Your task to perform on an android device: make emails show in primary in the gmail app Image 0: 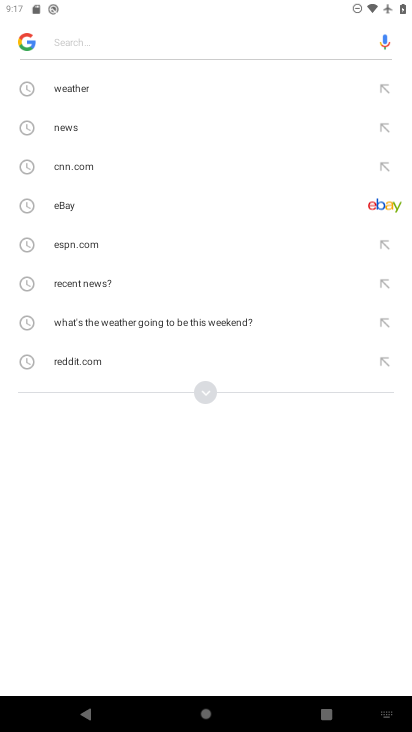
Step 0: press home button
Your task to perform on an android device: make emails show in primary in the gmail app Image 1: 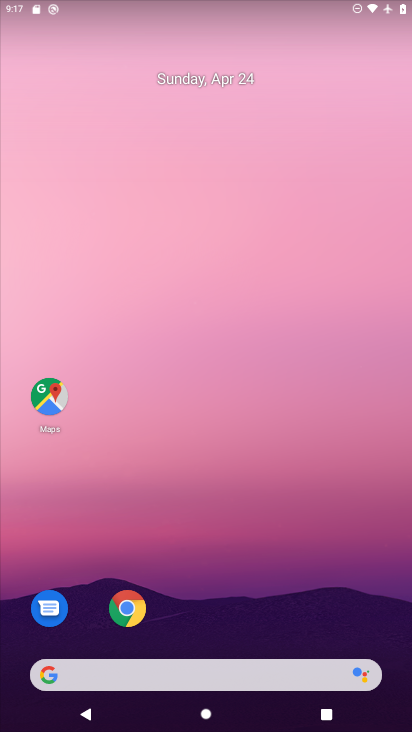
Step 1: drag from (208, 621) to (226, 119)
Your task to perform on an android device: make emails show in primary in the gmail app Image 2: 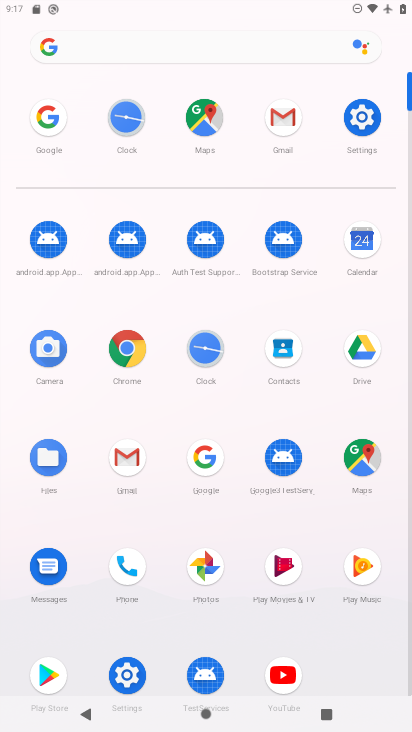
Step 2: click (277, 130)
Your task to perform on an android device: make emails show in primary in the gmail app Image 3: 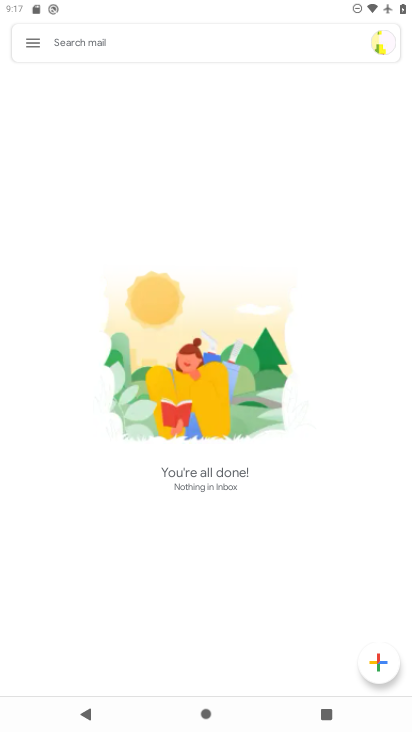
Step 3: click (29, 41)
Your task to perform on an android device: make emails show in primary in the gmail app Image 4: 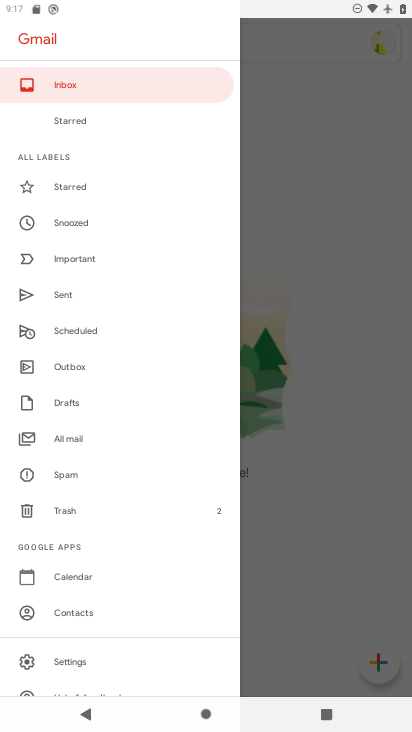
Step 4: click (76, 655)
Your task to perform on an android device: make emails show in primary in the gmail app Image 5: 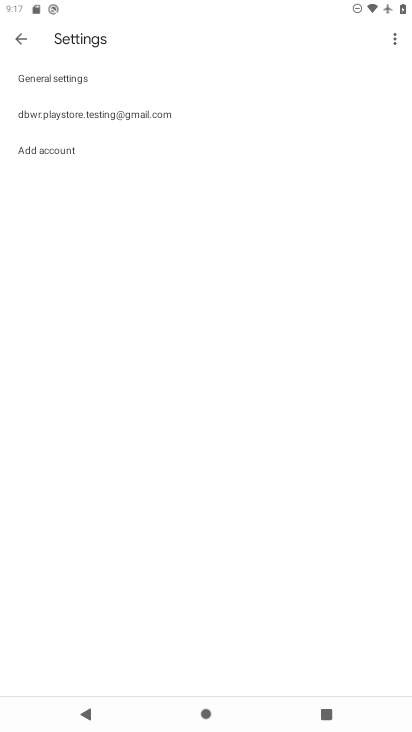
Step 5: click (118, 104)
Your task to perform on an android device: make emails show in primary in the gmail app Image 6: 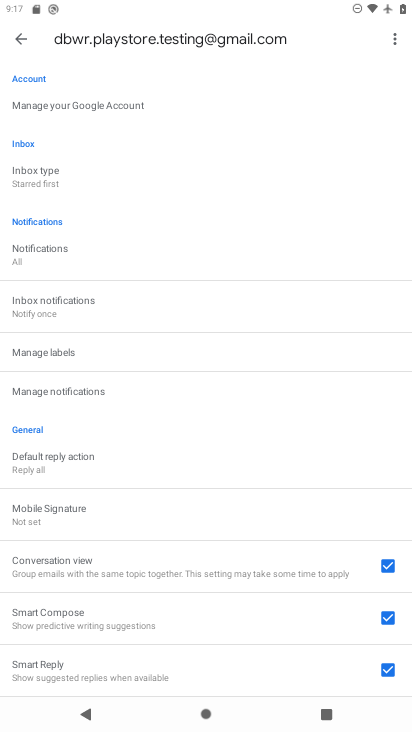
Step 6: click (80, 180)
Your task to perform on an android device: make emails show in primary in the gmail app Image 7: 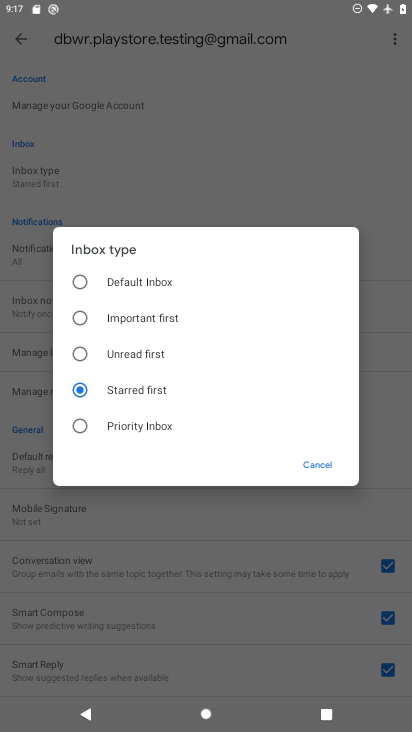
Step 7: click (128, 284)
Your task to perform on an android device: make emails show in primary in the gmail app Image 8: 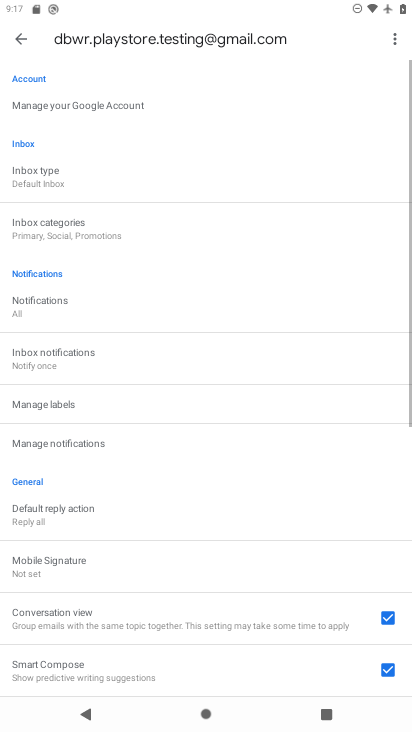
Step 8: click (57, 223)
Your task to perform on an android device: make emails show in primary in the gmail app Image 9: 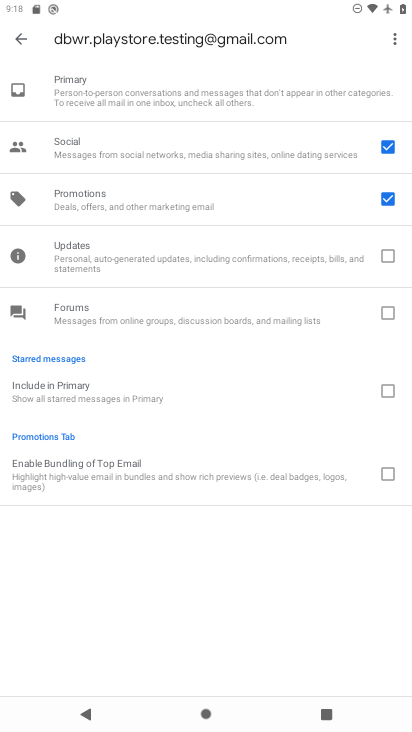
Step 9: click (108, 101)
Your task to perform on an android device: make emails show in primary in the gmail app Image 10: 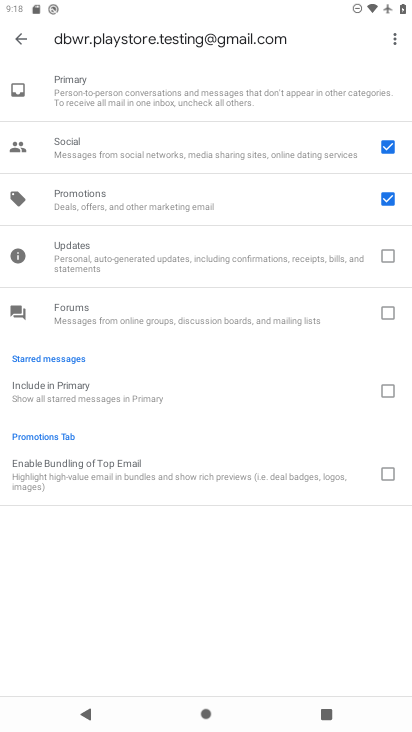
Step 10: task complete